Your task to perform on an android device: What's on my calendar today? Image 0: 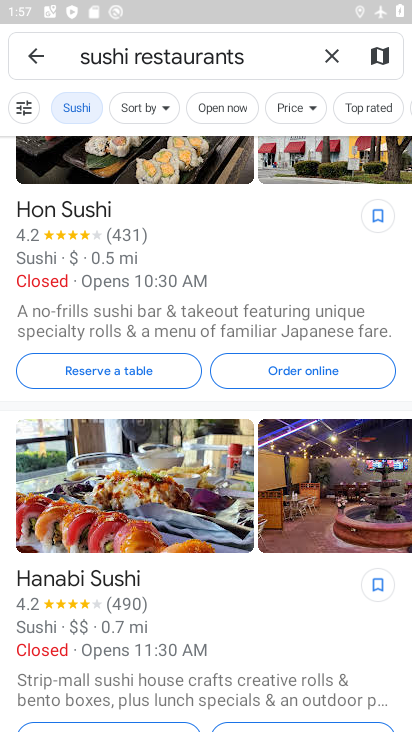
Step 0: press home button
Your task to perform on an android device: What's on my calendar today? Image 1: 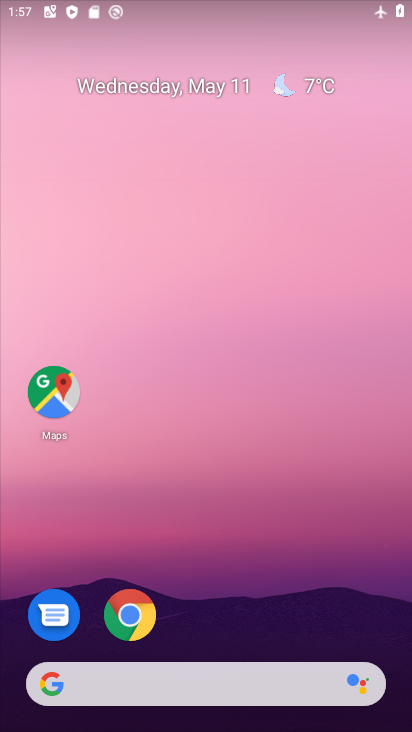
Step 1: drag from (321, 259) to (352, 122)
Your task to perform on an android device: What's on my calendar today? Image 2: 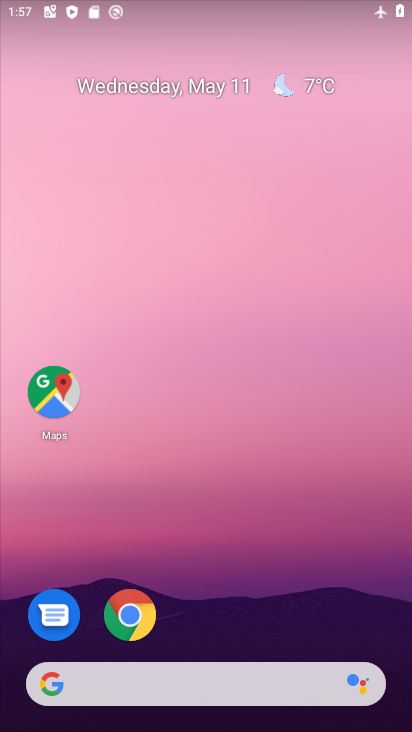
Step 2: drag from (212, 514) to (300, 104)
Your task to perform on an android device: What's on my calendar today? Image 3: 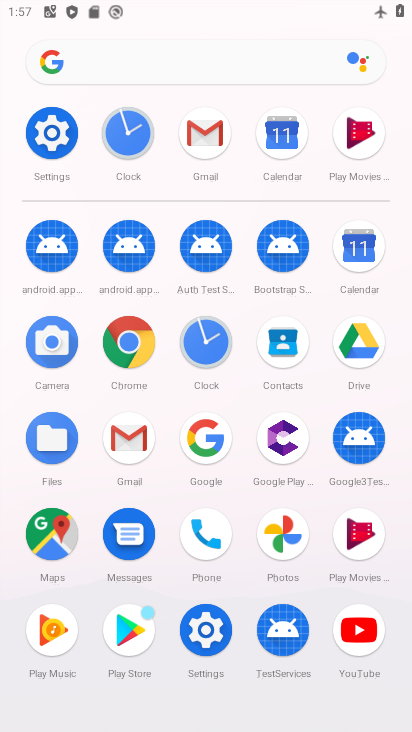
Step 3: click (363, 247)
Your task to perform on an android device: What's on my calendar today? Image 4: 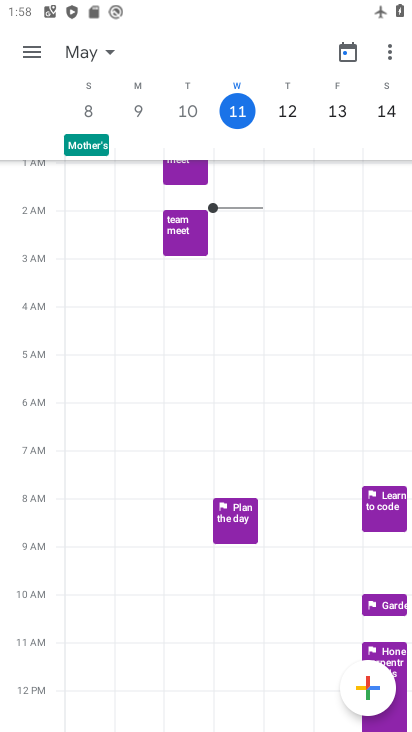
Step 4: click (36, 49)
Your task to perform on an android device: What's on my calendar today? Image 5: 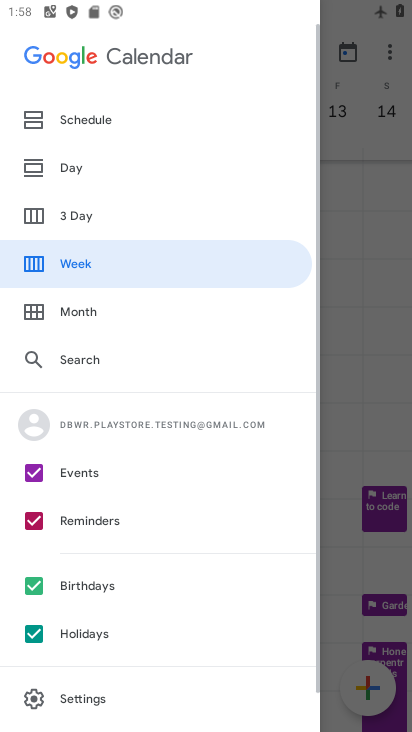
Step 5: click (74, 166)
Your task to perform on an android device: What's on my calendar today? Image 6: 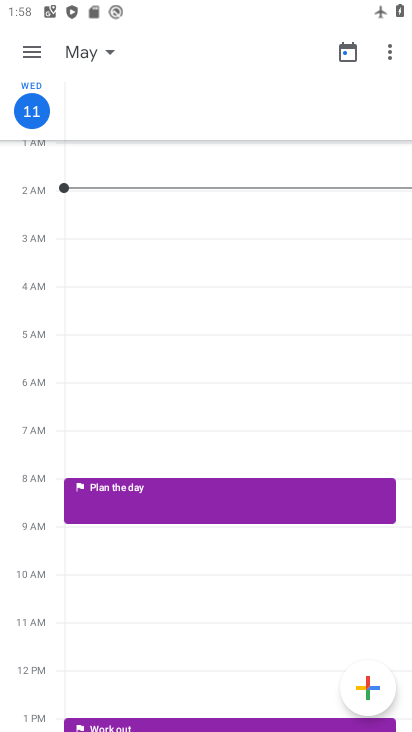
Step 6: task complete